Your task to perform on an android device: toggle pop-ups in chrome Image 0: 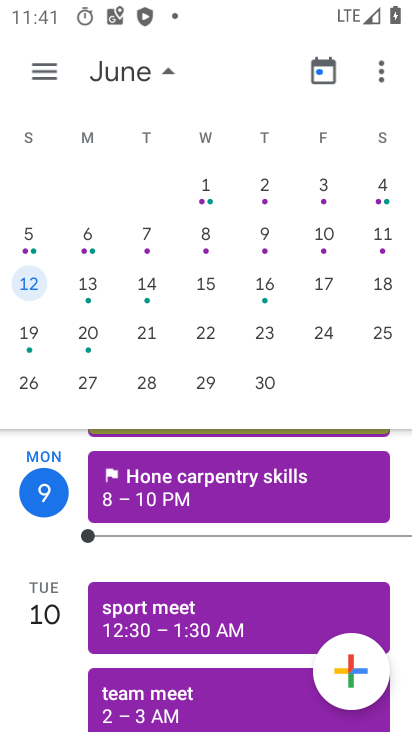
Step 0: press home button
Your task to perform on an android device: toggle pop-ups in chrome Image 1: 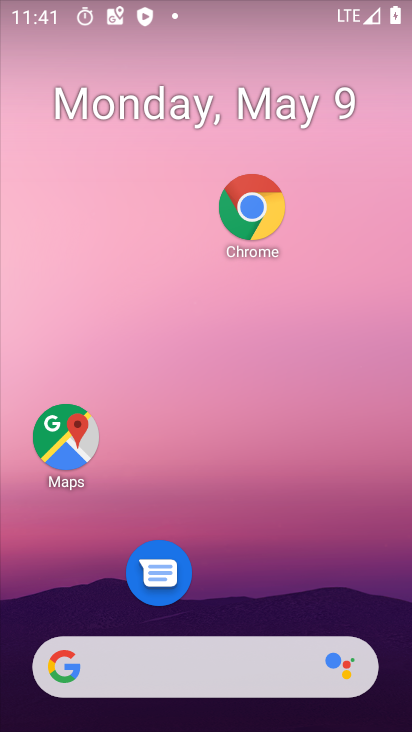
Step 1: drag from (207, 580) to (316, 340)
Your task to perform on an android device: toggle pop-ups in chrome Image 2: 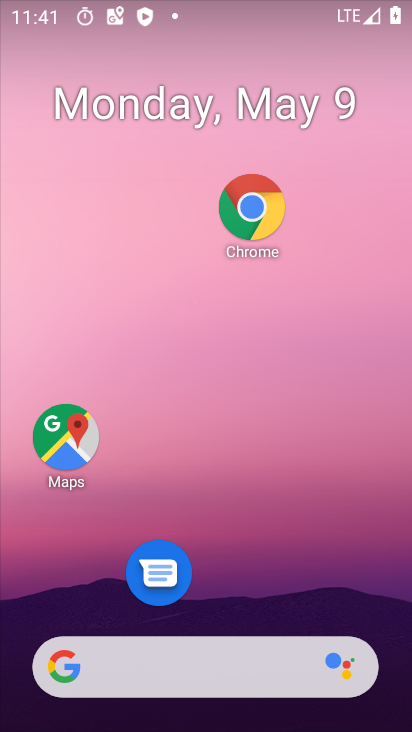
Step 2: click (273, 236)
Your task to perform on an android device: toggle pop-ups in chrome Image 3: 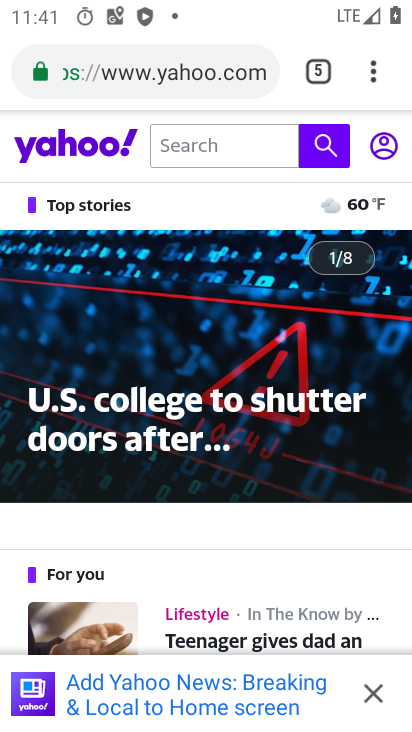
Step 3: click (367, 73)
Your task to perform on an android device: toggle pop-ups in chrome Image 4: 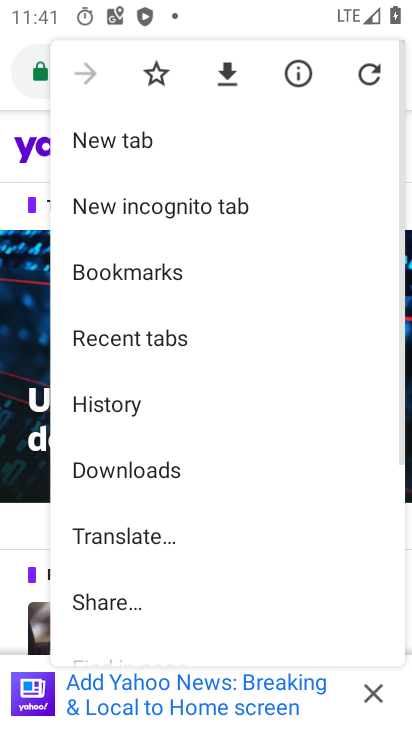
Step 4: drag from (316, 482) to (348, 79)
Your task to perform on an android device: toggle pop-ups in chrome Image 5: 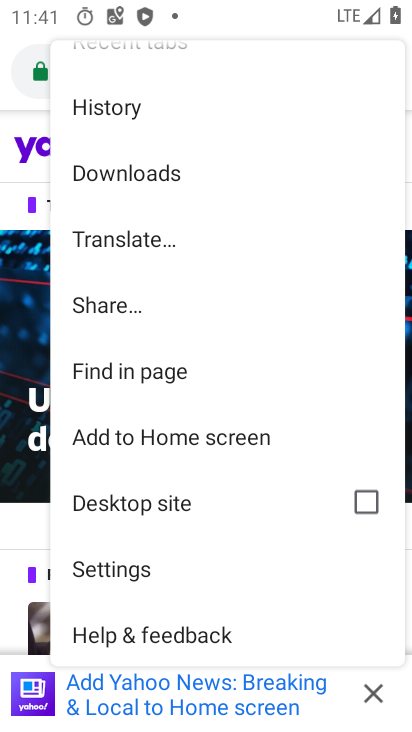
Step 5: click (179, 545)
Your task to perform on an android device: toggle pop-ups in chrome Image 6: 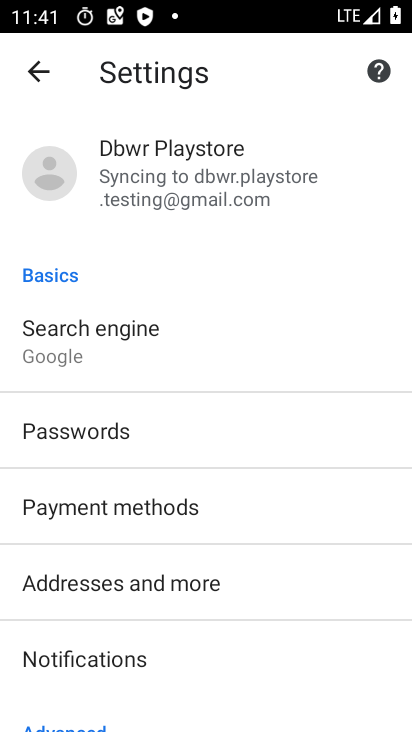
Step 6: drag from (201, 482) to (244, 307)
Your task to perform on an android device: toggle pop-ups in chrome Image 7: 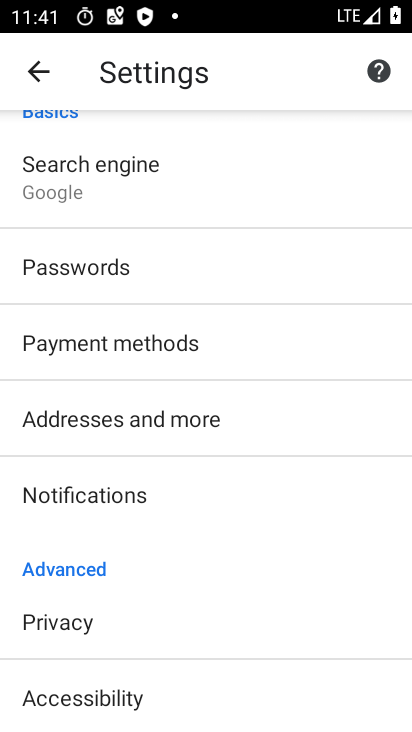
Step 7: drag from (271, 337) to (305, 135)
Your task to perform on an android device: toggle pop-ups in chrome Image 8: 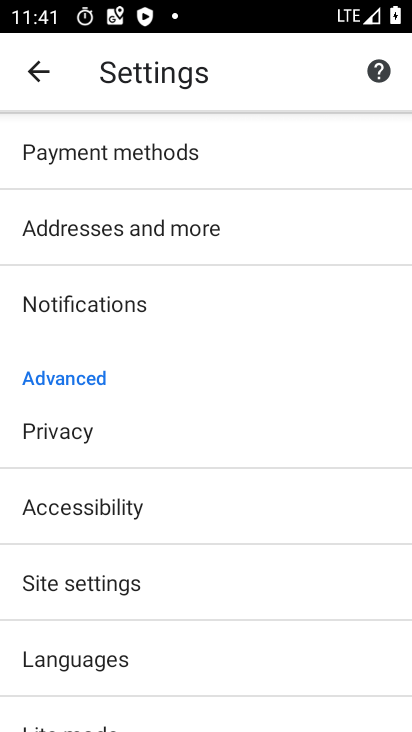
Step 8: click (148, 579)
Your task to perform on an android device: toggle pop-ups in chrome Image 9: 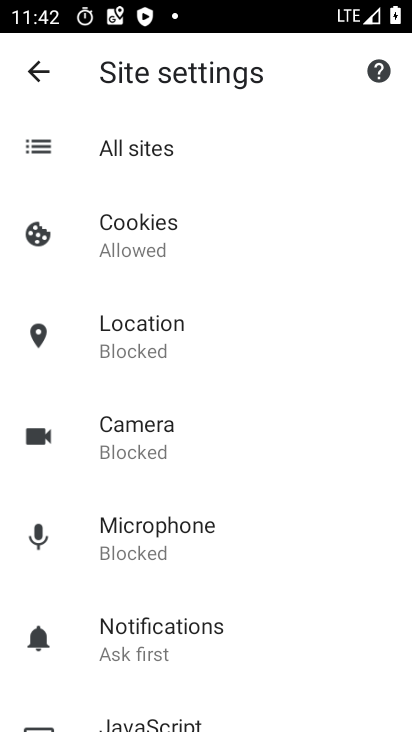
Step 9: drag from (175, 584) to (215, 145)
Your task to perform on an android device: toggle pop-ups in chrome Image 10: 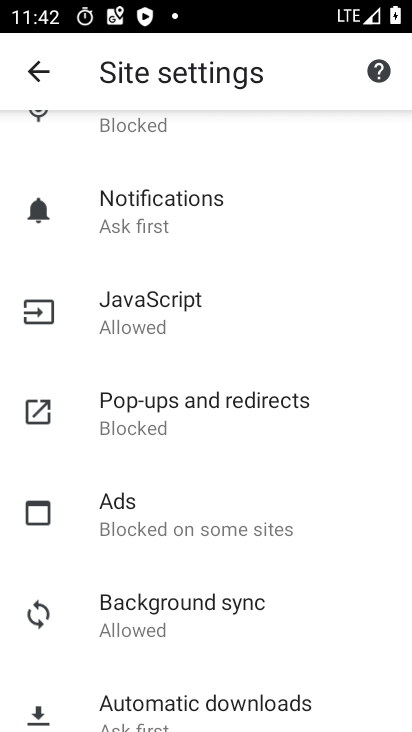
Step 10: click (252, 396)
Your task to perform on an android device: toggle pop-ups in chrome Image 11: 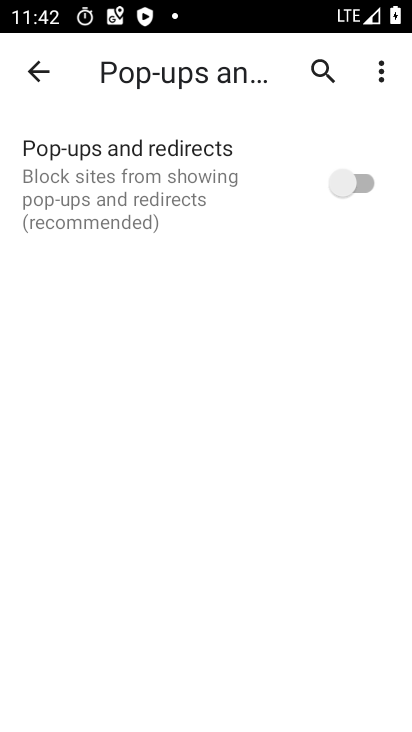
Step 11: click (371, 188)
Your task to perform on an android device: toggle pop-ups in chrome Image 12: 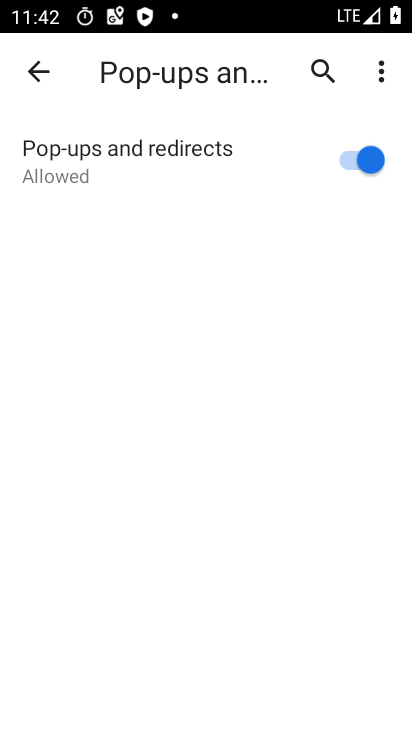
Step 12: task complete